Your task to perform on an android device: Show me recent news Image 0: 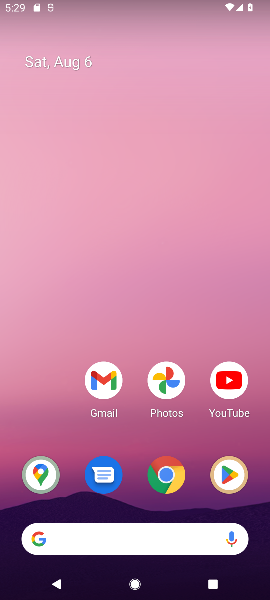
Step 0: drag from (12, 264) to (203, 273)
Your task to perform on an android device: Show me recent news Image 1: 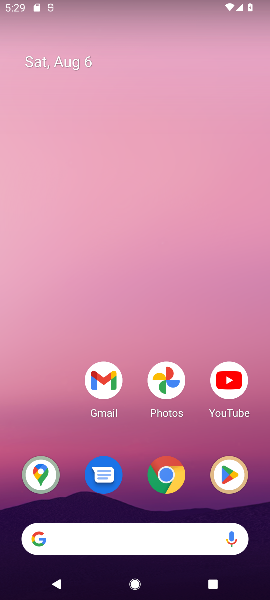
Step 1: task complete